Your task to perform on an android device: Is it going to rain this weekend? Image 0: 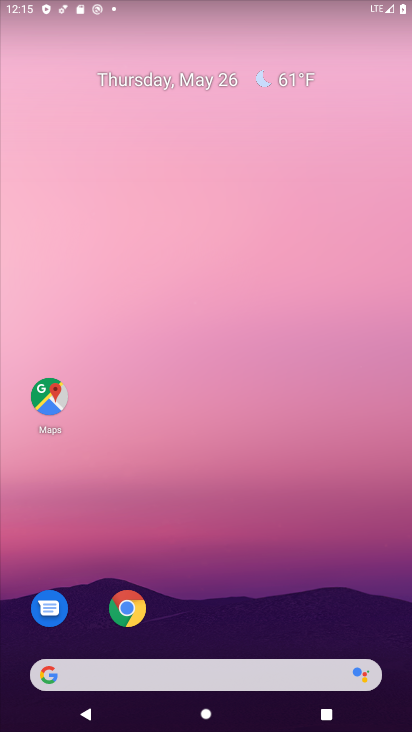
Step 0: click (285, 78)
Your task to perform on an android device: Is it going to rain this weekend? Image 1: 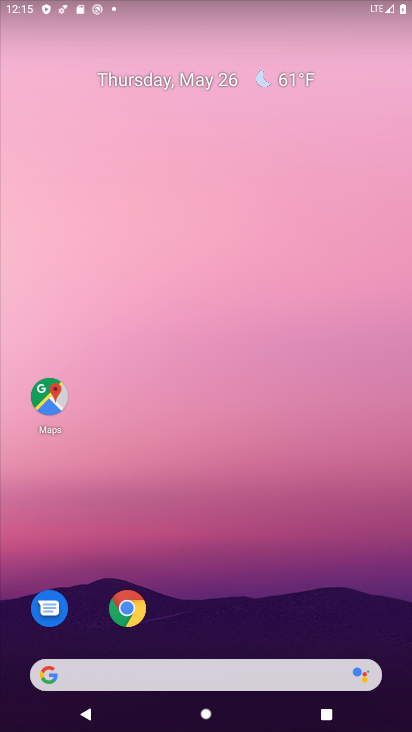
Step 1: click (291, 81)
Your task to perform on an android device: Is it going to rain this weekend? Image 2: 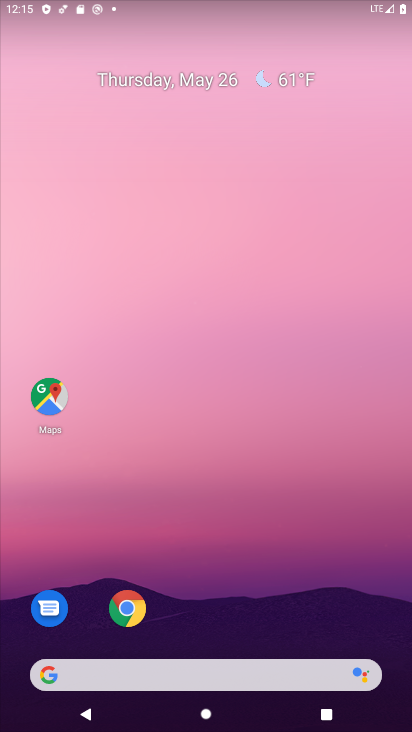
Step 2: click (272, 81)
Your task to perform on an android device: Is it going to rain this weekend? Image 3: 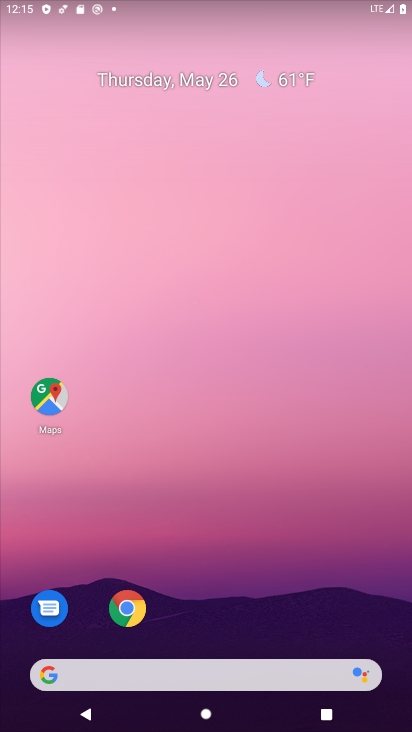
Step 3: click (292, 74)
Your task to perform on an android device: Is it going to rain this weekend? Image 4: 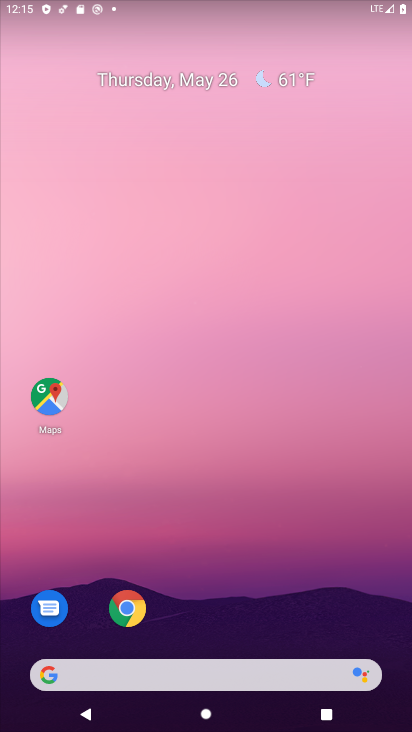
Step 4: click (167, 676)
Your task to perform on an android device: Is it going to rain this weekend? Image 5: 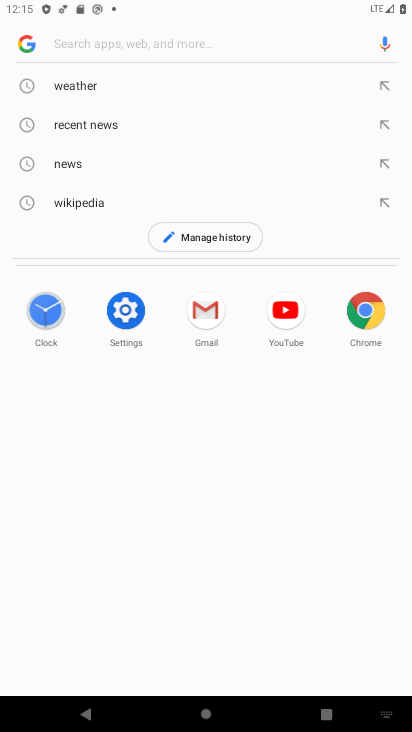
Step 5: click (74, 80)
Your task to perform on an android device: Is it going to rain this weekend? Image 6: 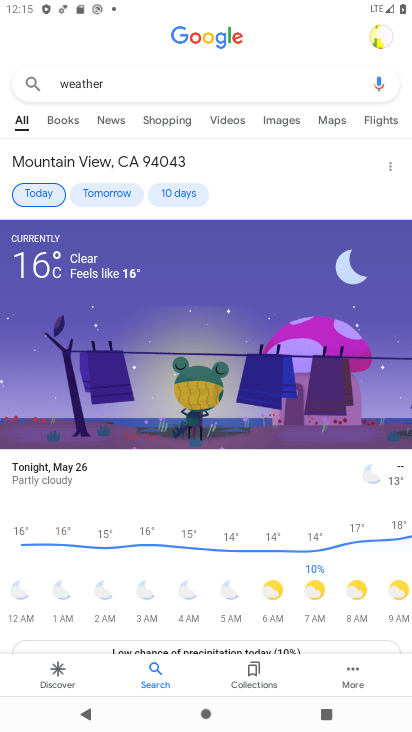
Step 6: drag from (358, 539) to (235, 554)
Your task to perform on an android device: Is it going to rain this weekend? Image 7: 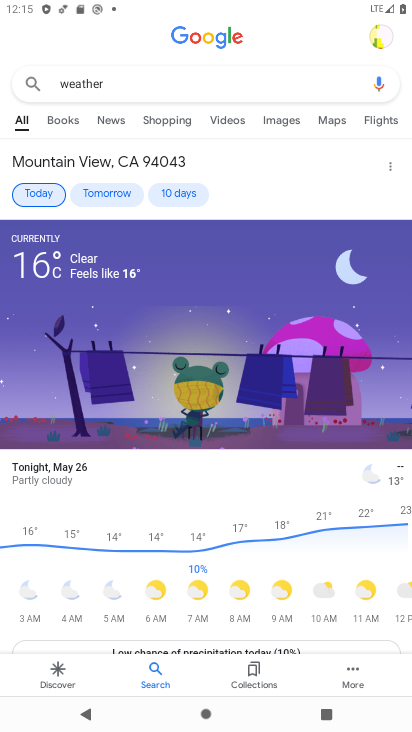
Step 7: click (180, 192)
Your task to perform on an android device: Is it going to rain this weekend? Image 8: 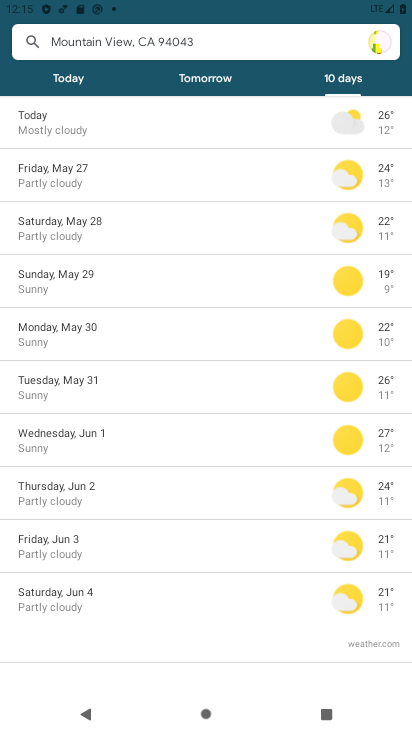
Step 8: task complete